Your task to perform on an android device: Open the web browser Image 0: 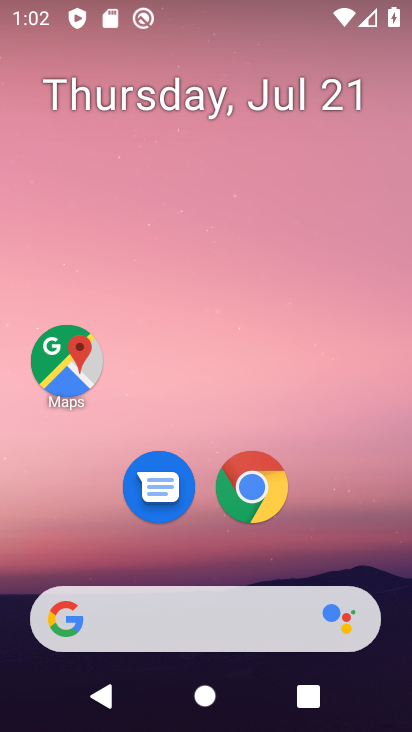
Step 0: click (259, 480)
Your task to perform on an android device: Open the web browser Image 1: 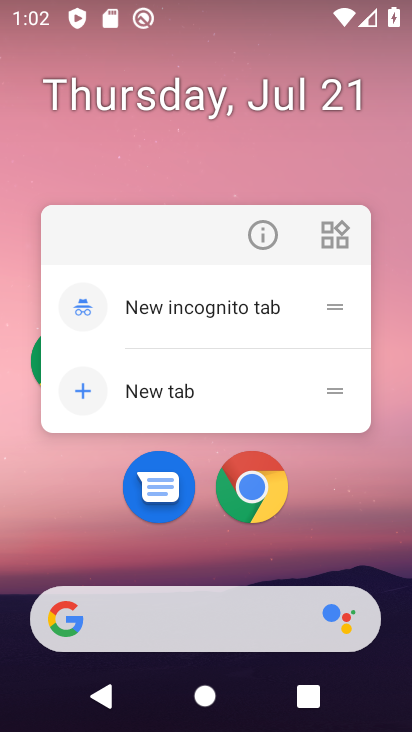
Step 1: click (246, 480)
Your task to perform on an android device: Open the web browser Image 2: 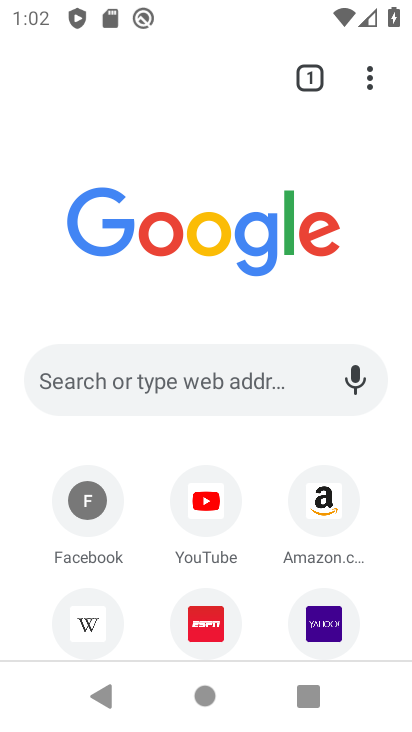
Step 2: task complete